Your task to perform on an android device: change your default location settings in chrome Image 0: 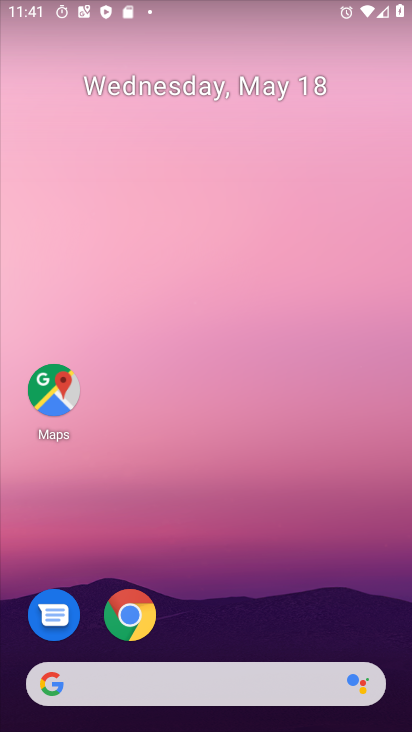
Step 0: drag from (136, 721) to (263, 180)
Your task to perform on an android device: change your default location settings in chrome Image 1: 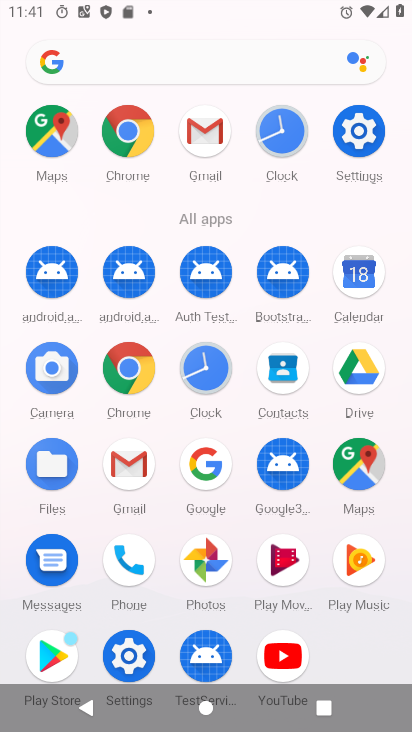
Step 1: click (128, 136)
Your task to perform on an android device: change your default location settings in chrome Image 2: 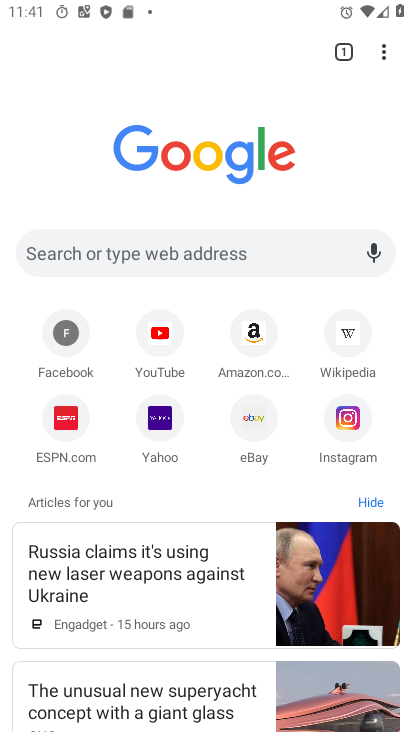
Step 2: click (378, 59)
Your task to perform on an android device: change your default location settings in chrome Image 3: 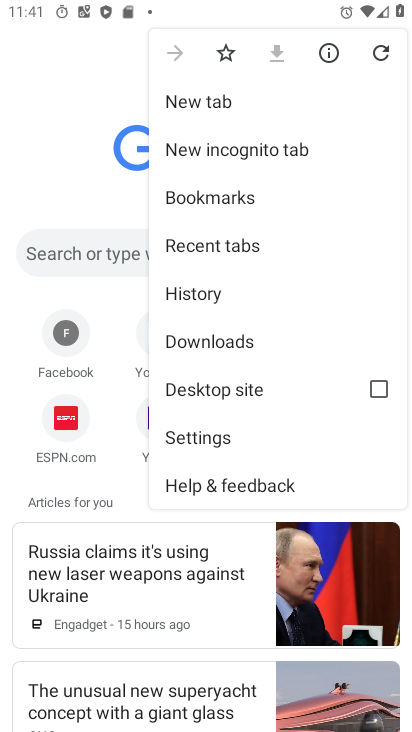
Step 3: click (207, 432)
Your task to perform on an android device: change your default location settings in chrome Image 4: 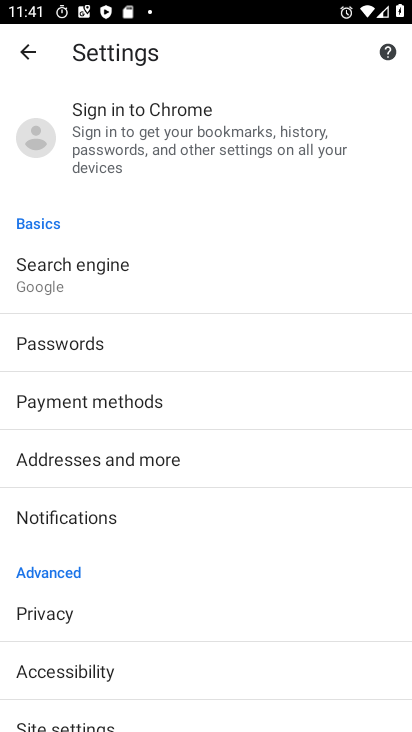
Step 4: drag from (20, 532) to (170, 279)
Your task to perform on an android device: change your default location settings in chrome Image 5: 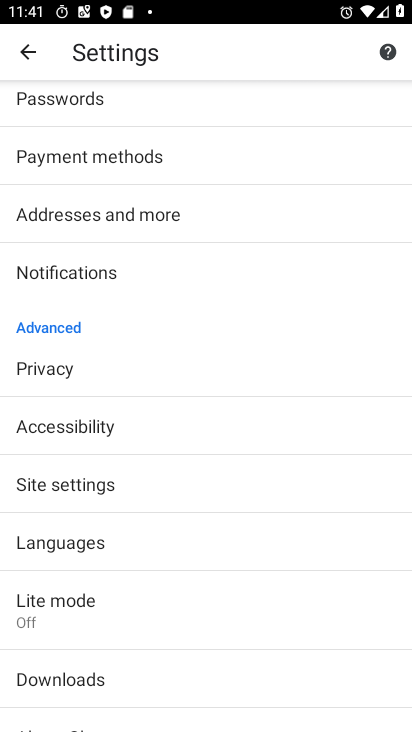
Step 5: click (45, 483)
Your task to perform on an android device: change your default location settings in chrome Image 6: 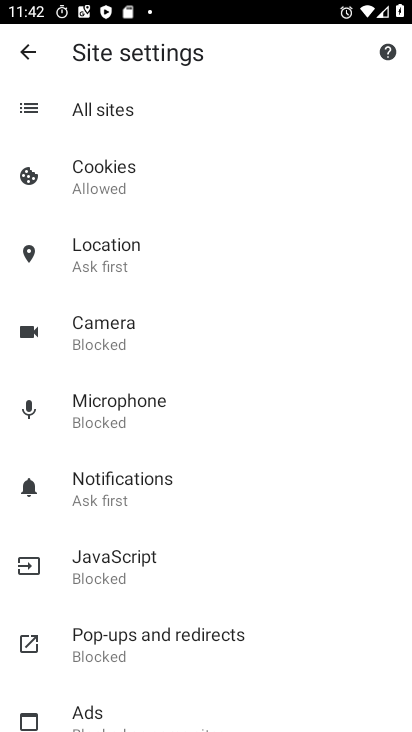
Step 6: click (113, 272)
Your task to perform on an android device: change your default location settings in chrome Image 7: 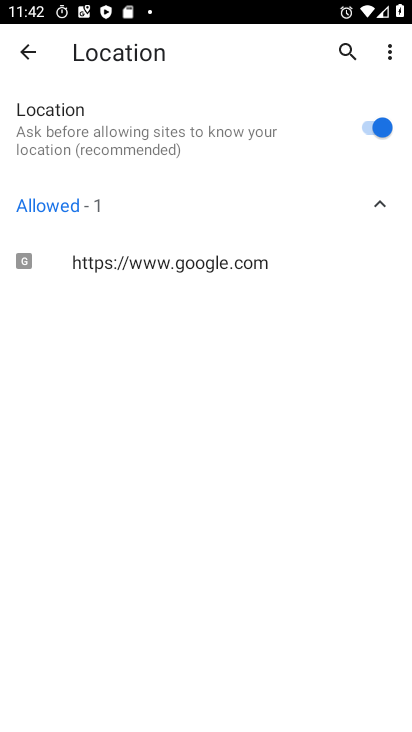
Step 7: task complete